Your task to perform on an android device: turn on location history Image 0: 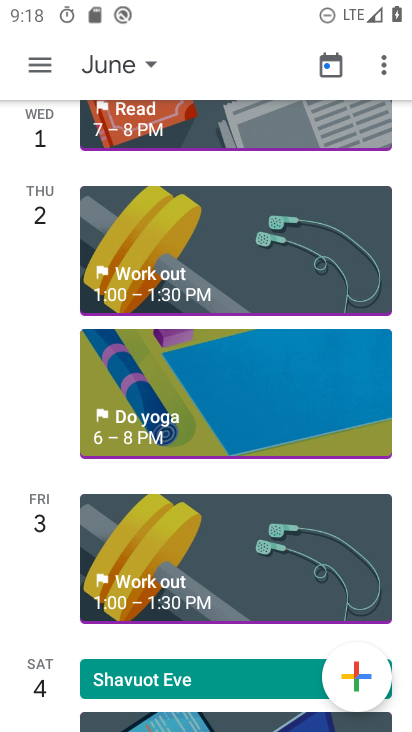
Step 0: press home button
Your task to perform on an android device: turn on location history Image 1: 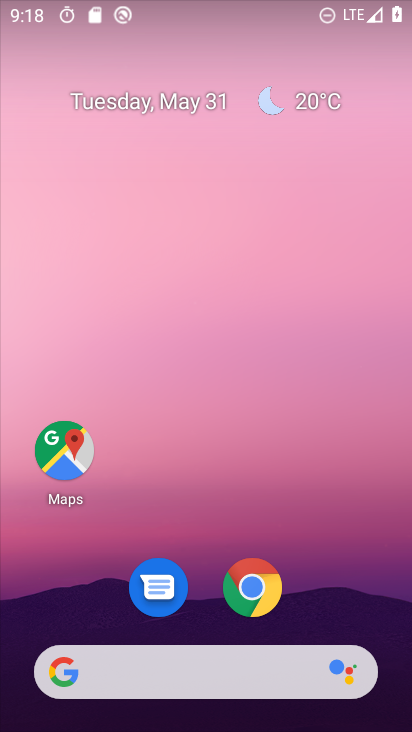
Step 1: drag from (208, 611) to (246, 39)
Your task to perform on an android device: turn on location history Image 2: 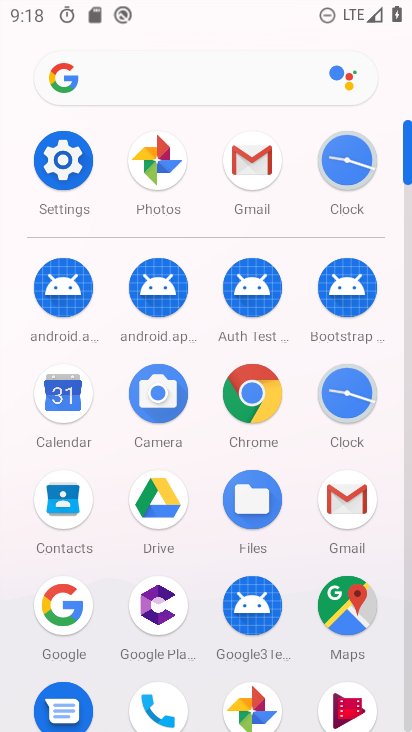
Step 2: click (73, 166)
Your task to perform on an android device: turn on location history Image 3: 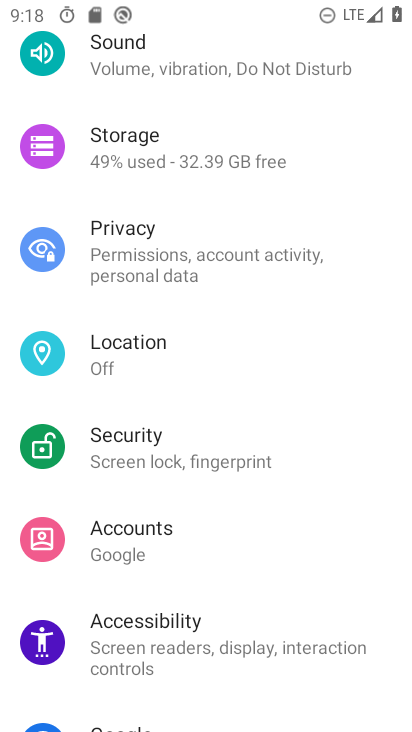
Step 3: click (114, 362)
Your task to perform on an android device: turn on location history Image 4: 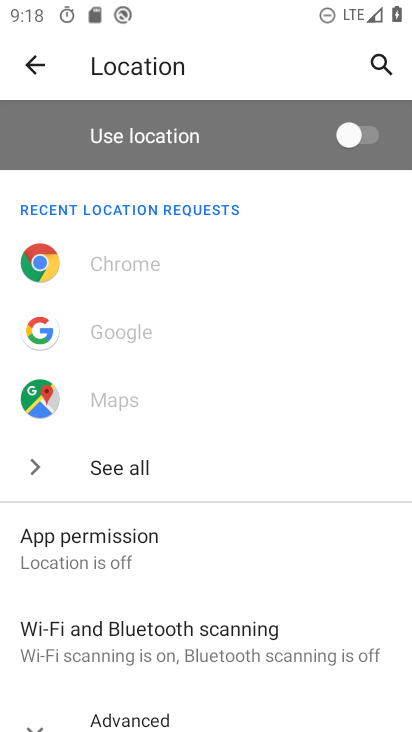
Step 4: drag from (82, 673) to (172, 160)
Your task to perform on an android device: turn on location history Image 5: 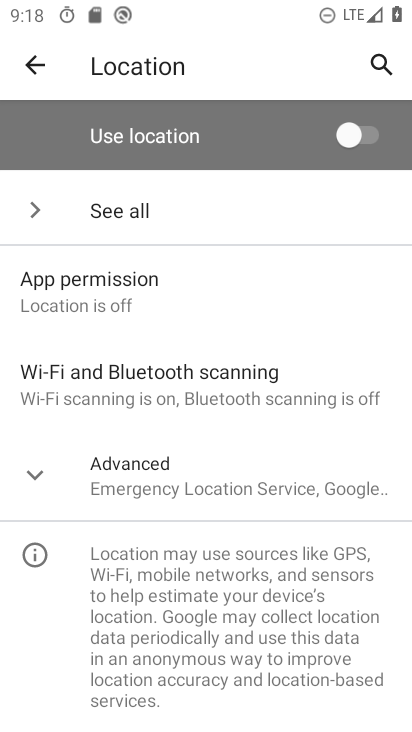
Step 5: click (125, 479)
Your task to perform on an android device: turn on location history Image 6: 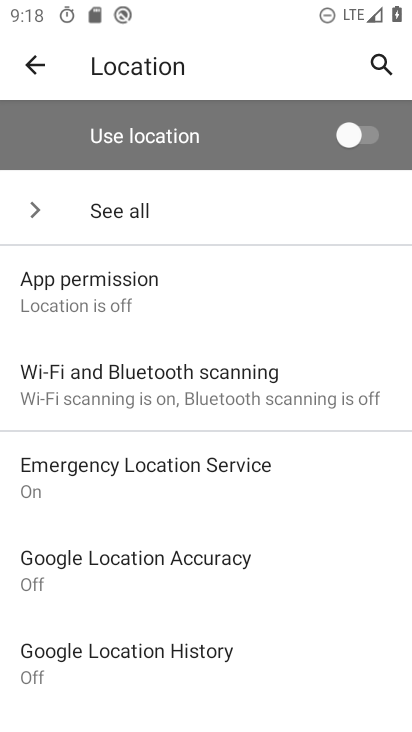
Step 6: click (142, 653)
Your task to perform on an android device: turn on location history Image 7: 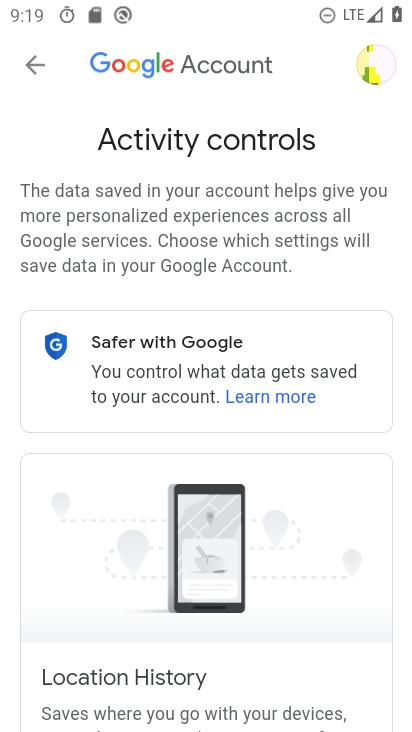
Step 7: drag from (111, 633) to (165, 180)
Your task to perform on an android device: turn on location history Image 8: 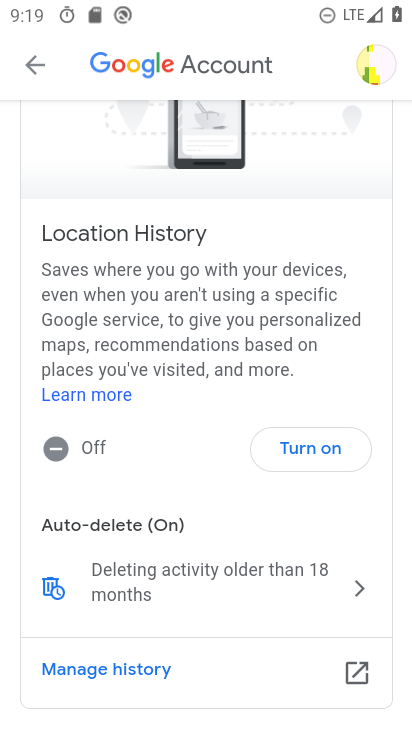
Step 8: click (305, 446)
Your task to perform on an android device: turn on location history Image 9: 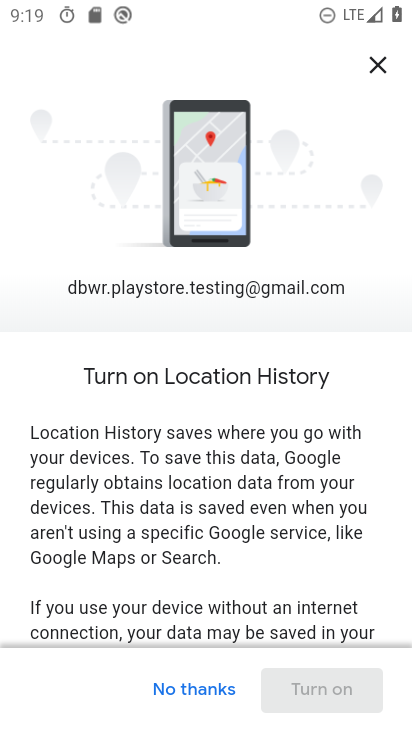
Step 9: drag from (186, 609) to (261, 104)
Your task to perform on an android device: turn on location history Image 10: 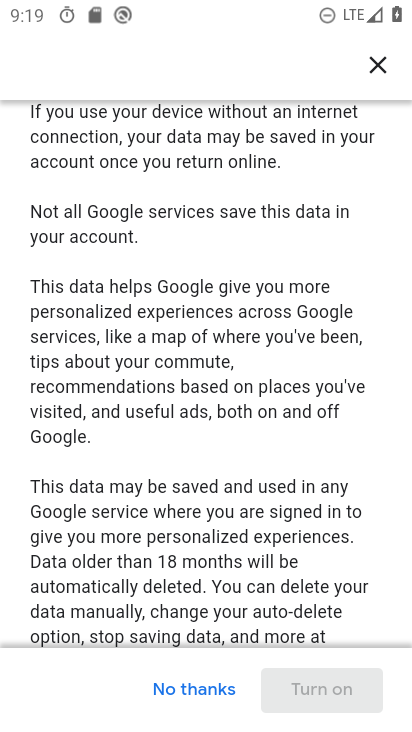
Step 10: drag from (151, 531) to (212, 14)
Your task to perform on an android device: turn on location history Image 11: 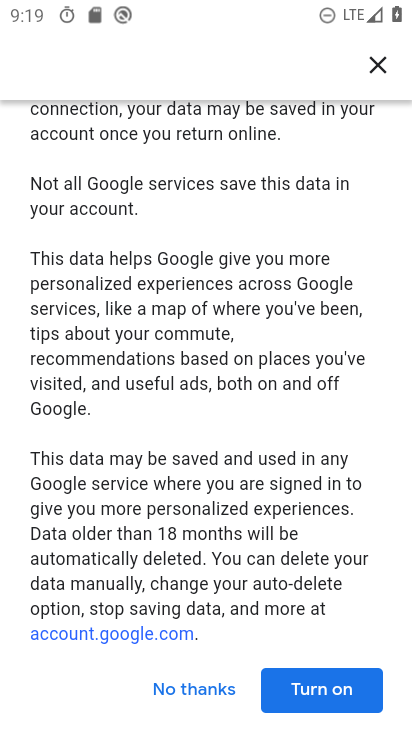
Step 11: click (281, 678)
Your task to perform on an android device: turn on location history Image 12: 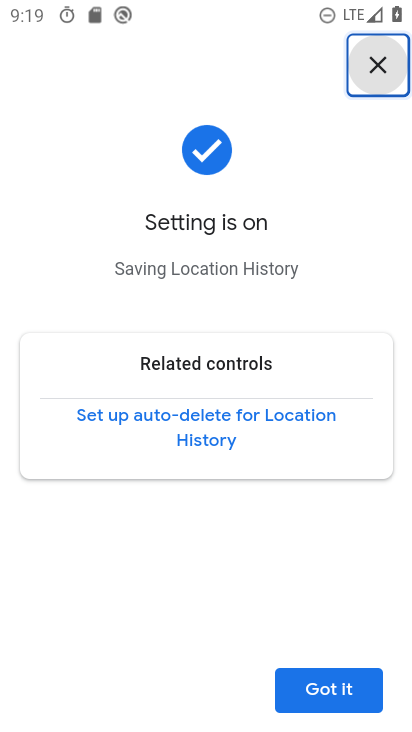
Step 12: click (331, 680)
Your task to perform on an android device: turn on location history Image 13: 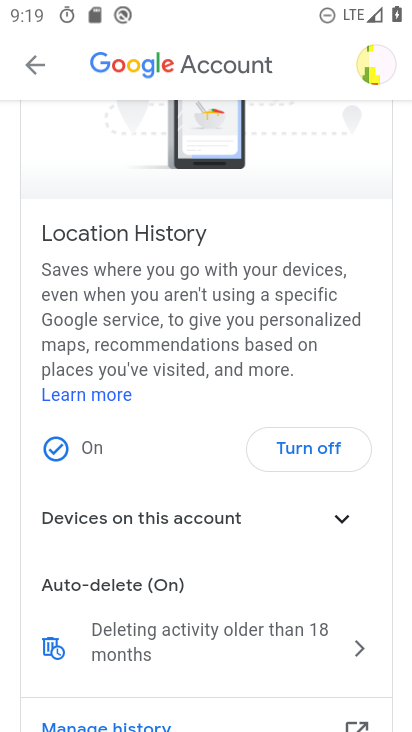
Step 13: task complete